Your task to perform on an android device: turn off javascript in the chrome app Image 0: 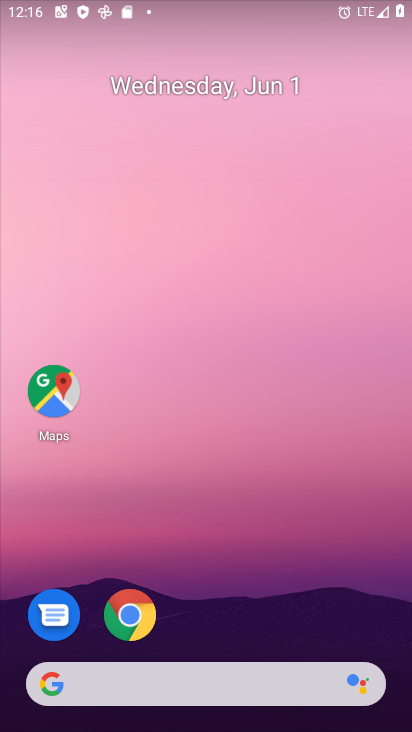
Step 0: drag from (324, 582) to (9, 124)
Your task to perform on an android device: turn off javascript in the chrome app Image 1: 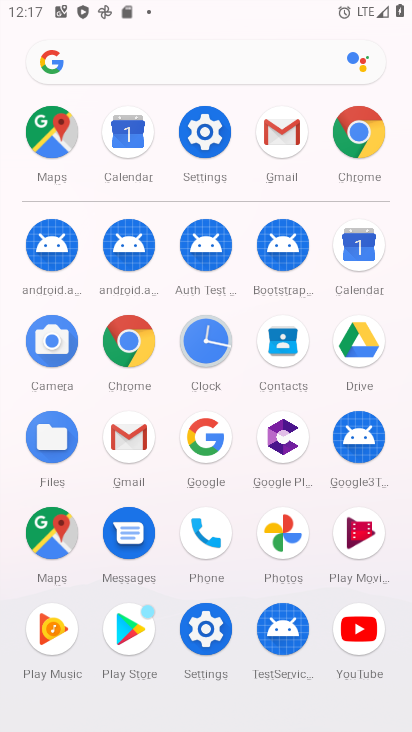
Step 1: click (368, 140)
Your task to perform on an android device: turn off javascript in the chrome app Image 2: 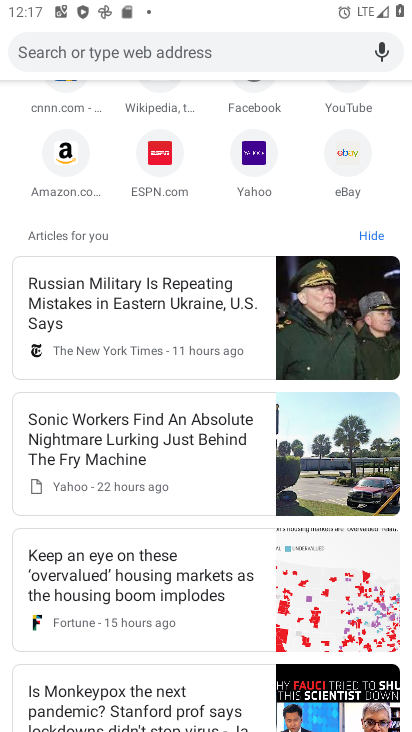
Step 2: drag from (104, 304) to (159, 726)
Your task to perform on an android device: turn off javascript in the chrome app Image 3: 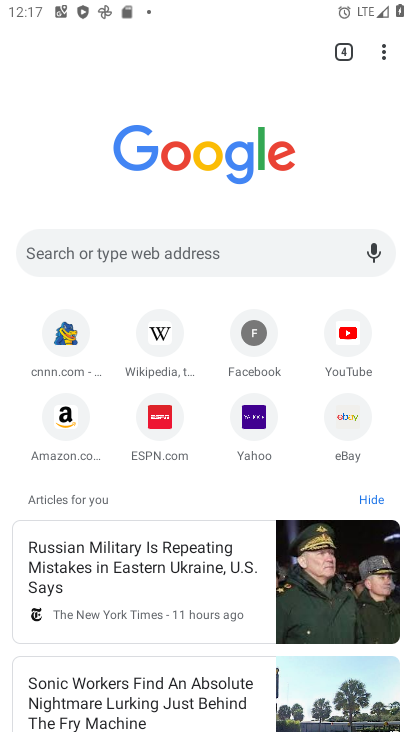
Step 3: drag from (384, 48) to (218, 443)
Your task to perform on an android device: turn off javascript in the chrome app Image 4: 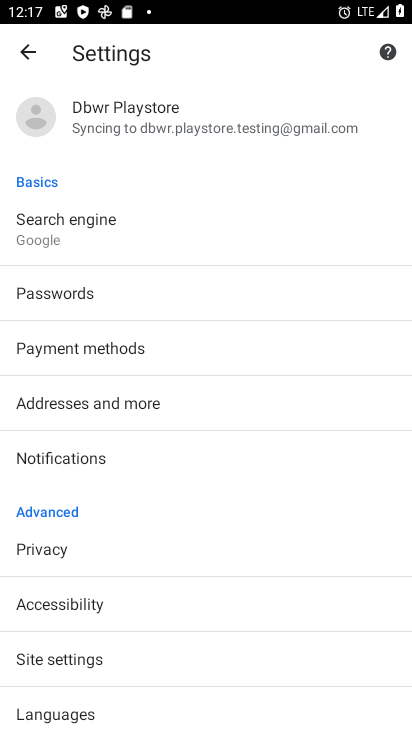
Step 4: drag from (126, 632) to (115, 163)
Your task to perform on an android device: turn off javascript in the chrome app Image 5: 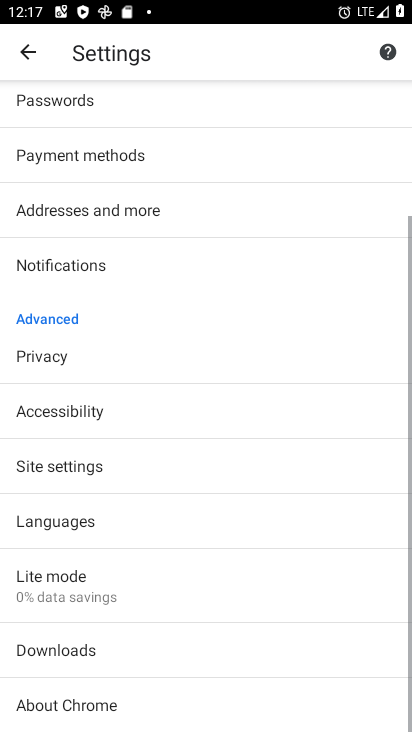
Step 5: click (70, 466)
Your task to perform on an android device: turn off javascript in the chrome app Image 6: 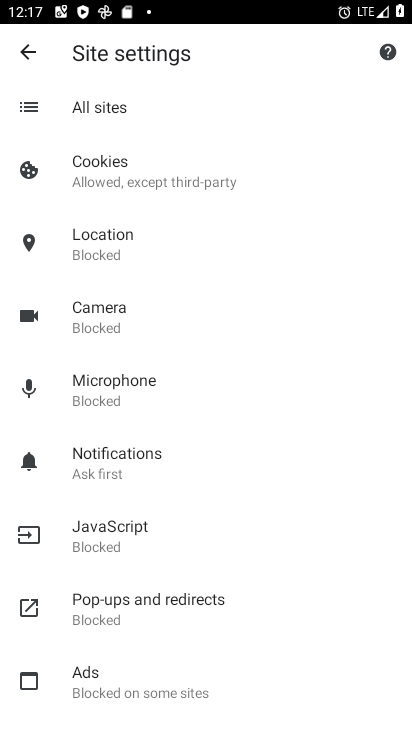
Step 6: click (108, 537)
Your task to perform on an android device: turn off javascript in the chrome app Image 7: 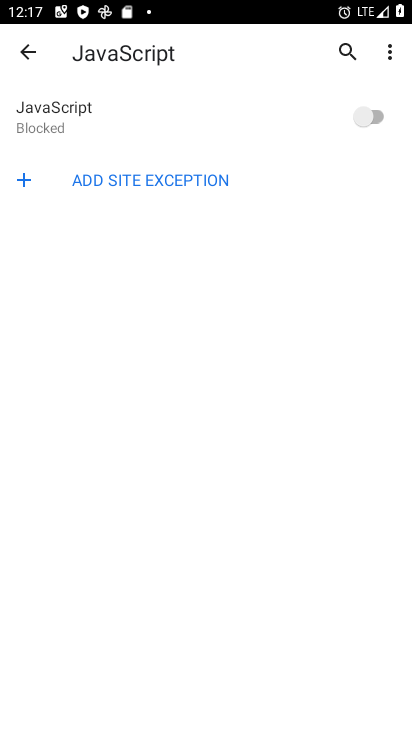
Step 7: task complete